Your task to perform on an android device: Is it going to rain today? Image 0: 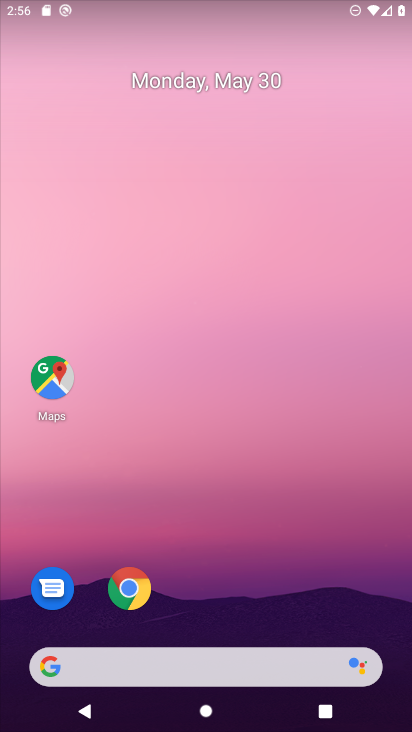
Step 0: click (119, 577)
Your task to perform on an android device: Is it going to rain today? Image 1: 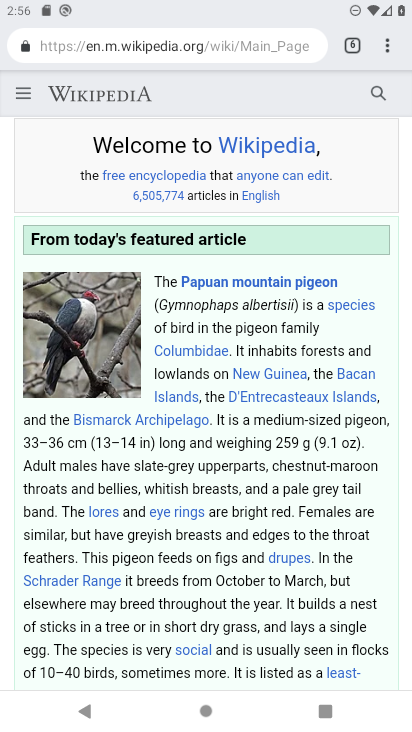
Step 1: click (392, 45)
Your task to perform on an android device: Is it going to rain today? Image 2: 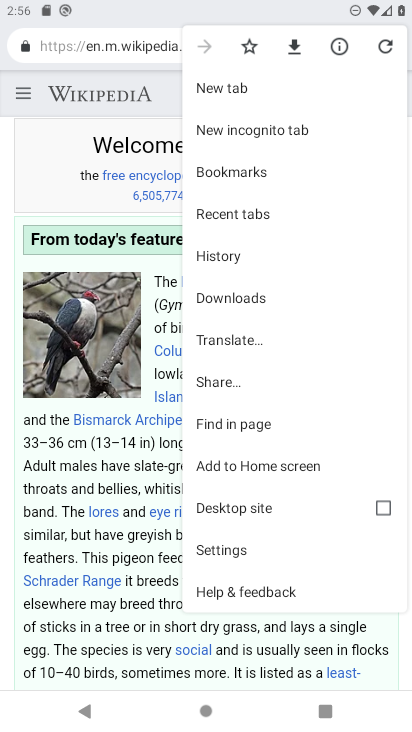
Step 2: click (236, 75)
Your task to perform on an android device: Is it going to rain today? Image 3: 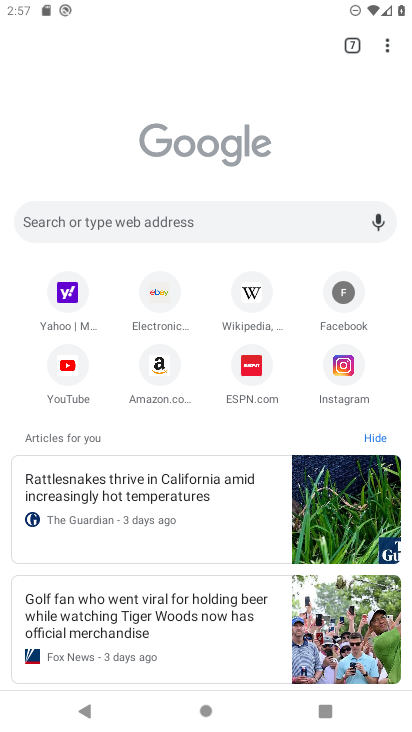
Step 3: click (201, 212)
Your task to perform on an android device: Is it going to rain today? Image 4: 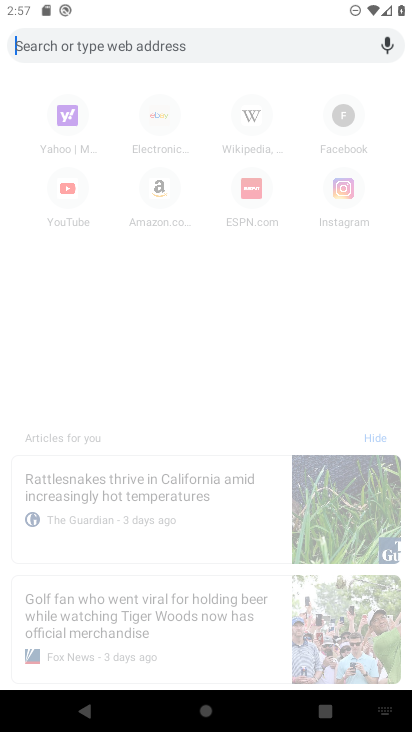
Step 4: type "Is it going to rain today?"
Your task to perform on an android device: Is it going to rain today? Image 5: 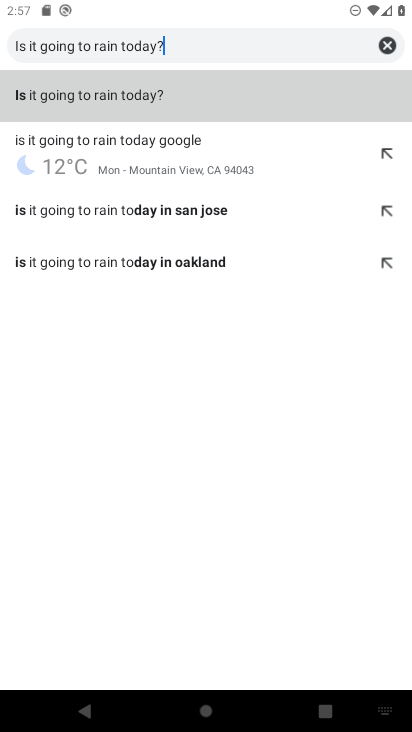
Step 5: click (52, 162)
Your task to perform on an android device: Is it going to rain today? Image 6: 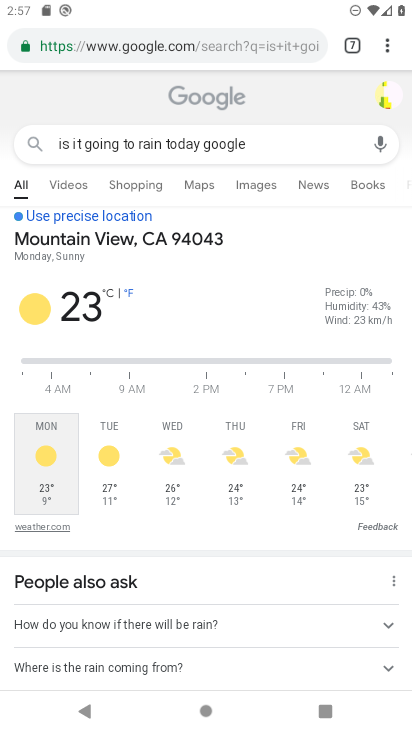
Step 6: task complete